Your task to perform on an android device: check data usage Image 0: 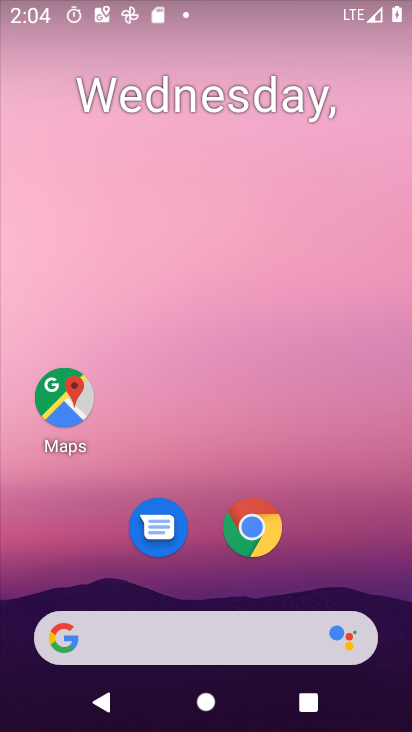
Step 0: drag from (233, 328) to (255, 1)
Your task to perform on an android device: check data usage Image 1: 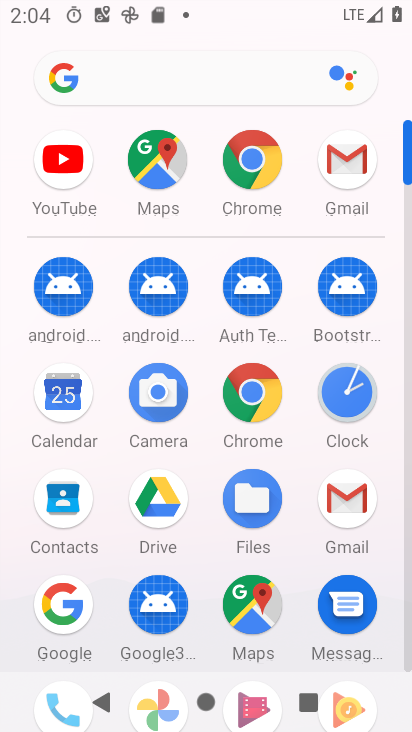
Step 1: drag from (289, 573) to (323, 132)
Your task to perform on an android device: check data usage Image 2: 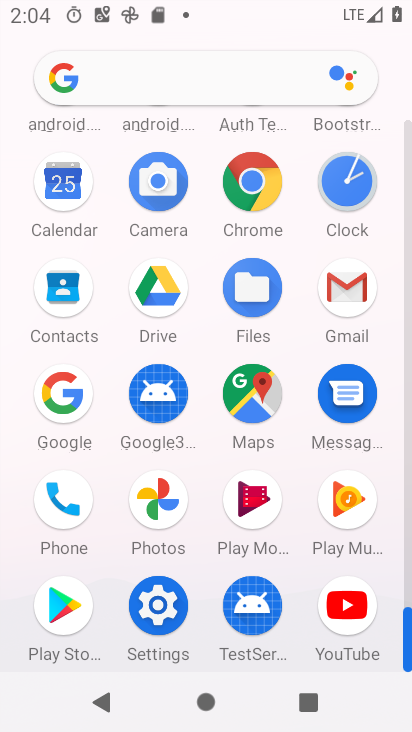
Step 2: click (164, 599)
Your task to perform on an android device: check data usage Image 3: 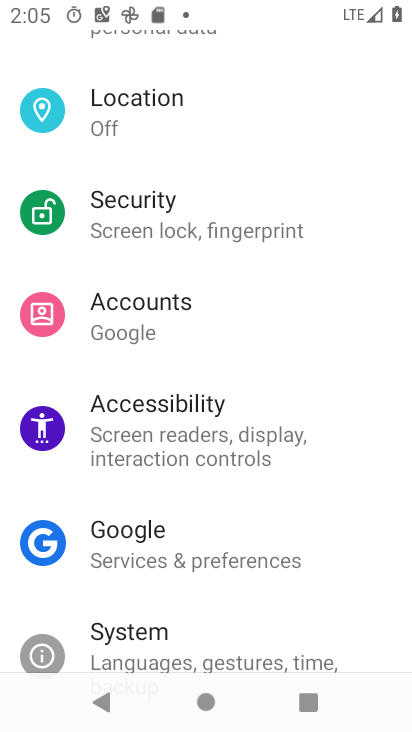
Step 3: drag from (286, 345) to (301, 703)
Your task to perform on an android device: check data usage Image 4: 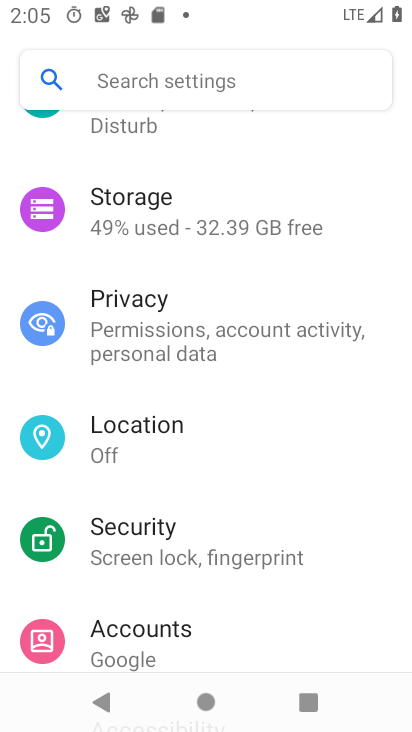
Step 4: drag from (254, 352) to (364, 686)
Your task to perform on an android device: check data usage Image 5: 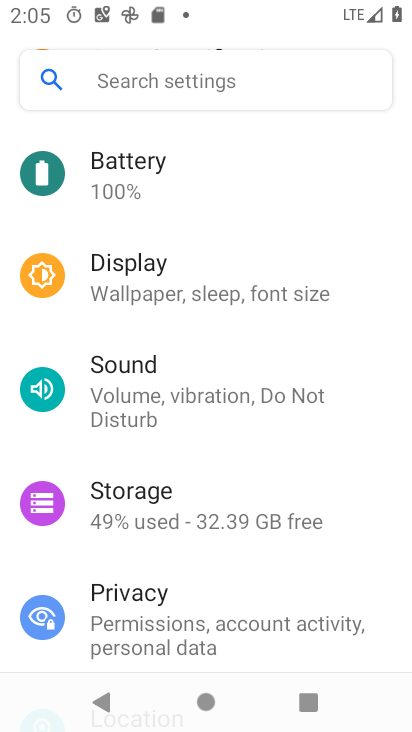
Step 5: drag from (246, 235) to (299, 638)
Your task to perform on an android device: check data usage Image 6: 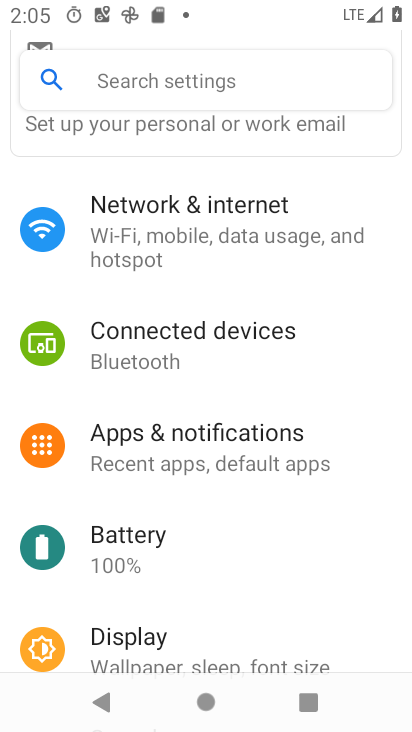
Step 6: click (216, 241)
Your task to perform on an android device: check data usage Image 7: 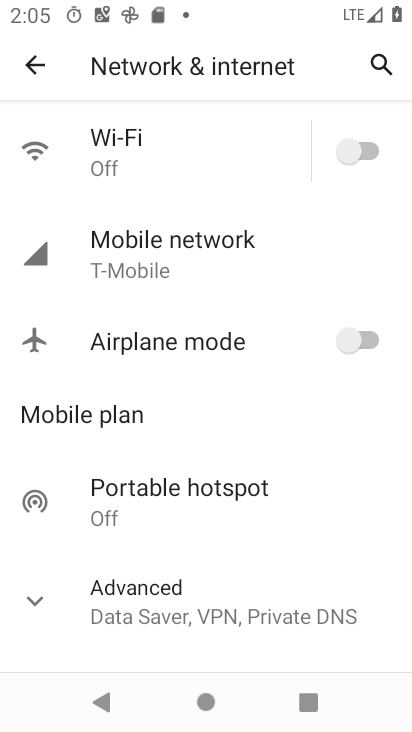
Step 7: click (195, 276)
Your task to perform on an android device: check data usage Image 8: 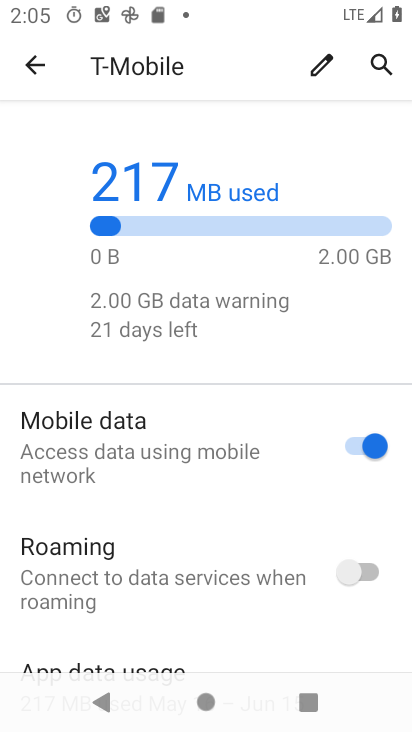
Step 8: task complete